Your task to perform on an android device: Go to calendar. Show me events next week Image 0: 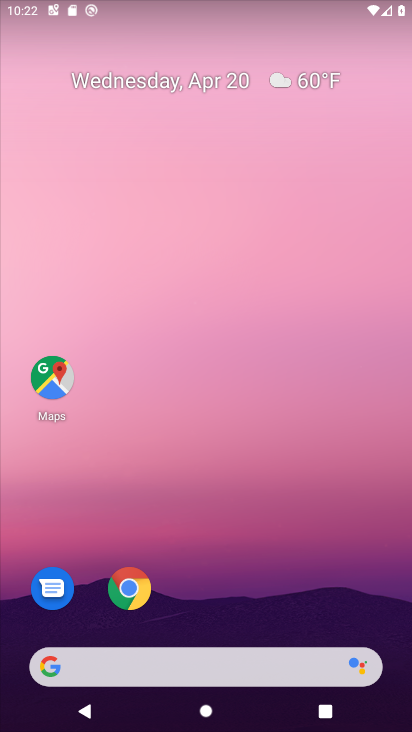
Step 0: drag from (258, 531) to (261, 60)
Your task to perform on an android device: Go to calendar. Show me events next week Image 1: 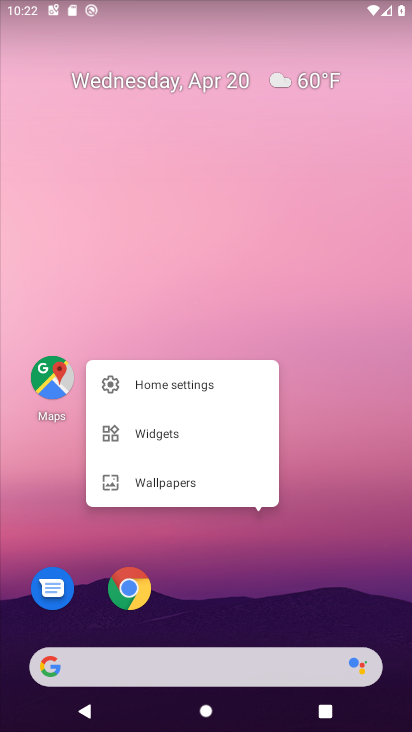
Step 1: click (281, 555)
Your task to perform on an android device: Go to calendar. Show me events next week Image 2: 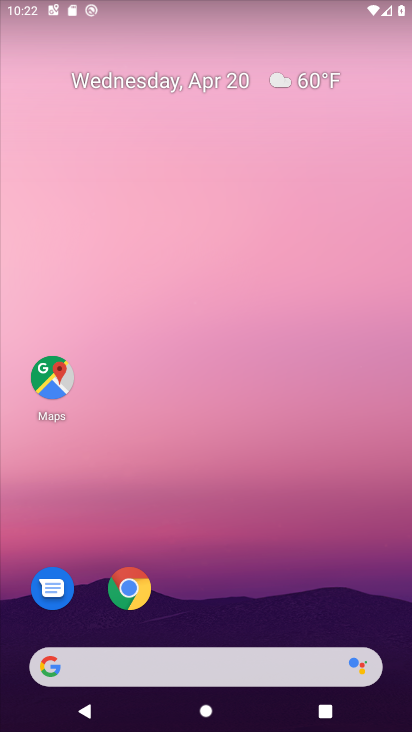
Step 2: drag from (250, 558) to (325, 11)
Your task to perform on an android device: Go to calendar. Show me events next week Image 3: 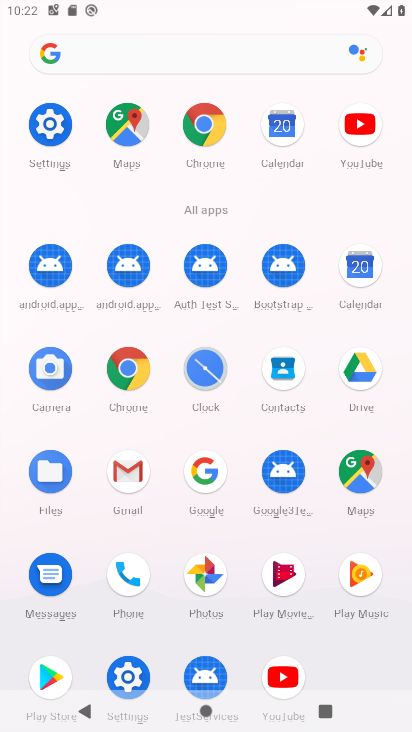
Step 3: click (354, 281)
Your task to perform on an android device: Go to calendar. Show me events next week Image 4: 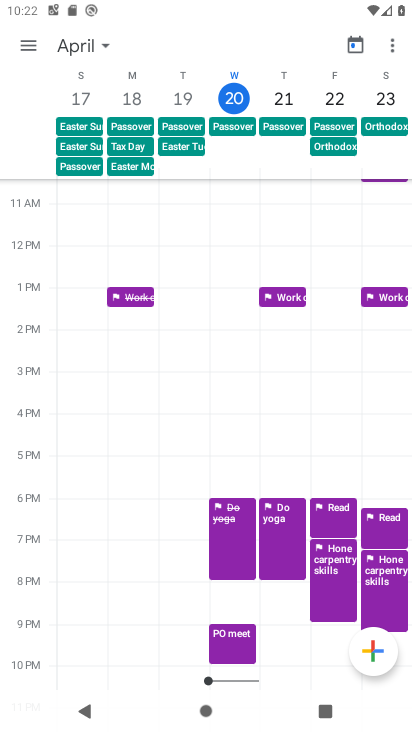
Step 4: click (109, 45)
Your task to perform on an android device: Go to calendar. Show me events next week Image 5: 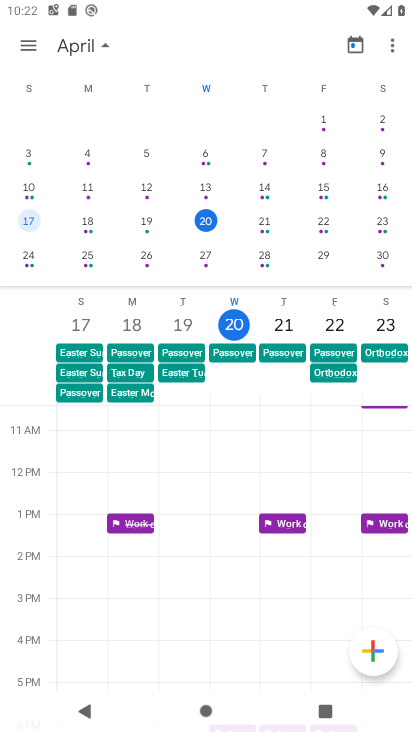
Step 5: click (81, 257)
Your task to perform on an android device: Go to calendar. Show me events next week Image 6: 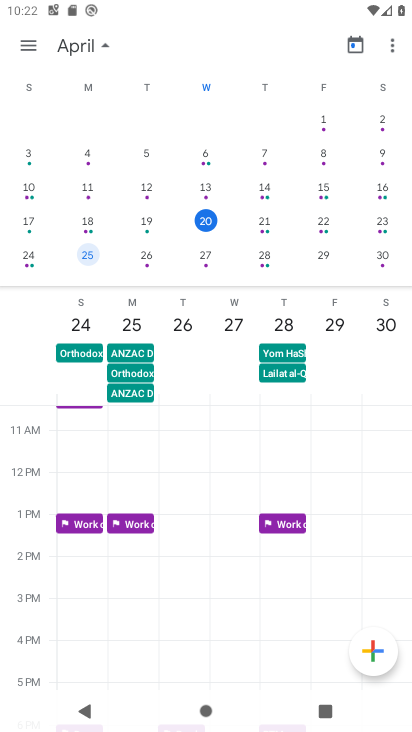
Step 6: task complete